Your task to perform on an android device: Open notification settings Image 0: 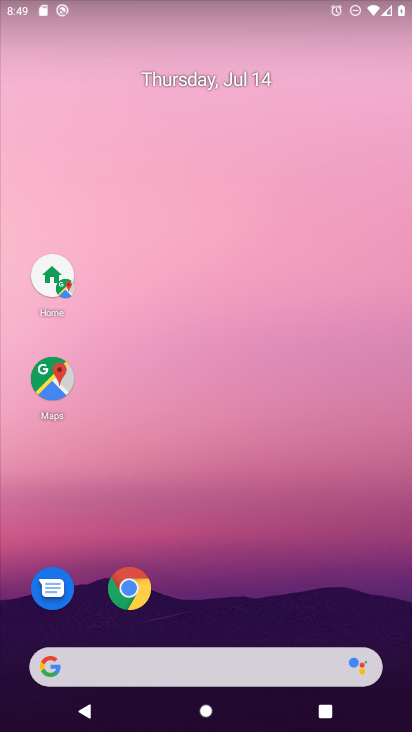
Step 0: drag from (47, 707) to (337, 34)
Your task to perform on an android device: Open notification settings Image 1: 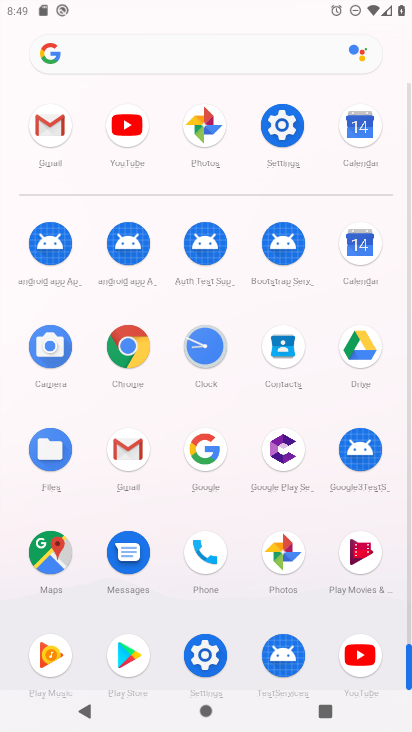
Step 1: click (213, 659)
Your task to perform on an android device: Open notification settings Image 2: 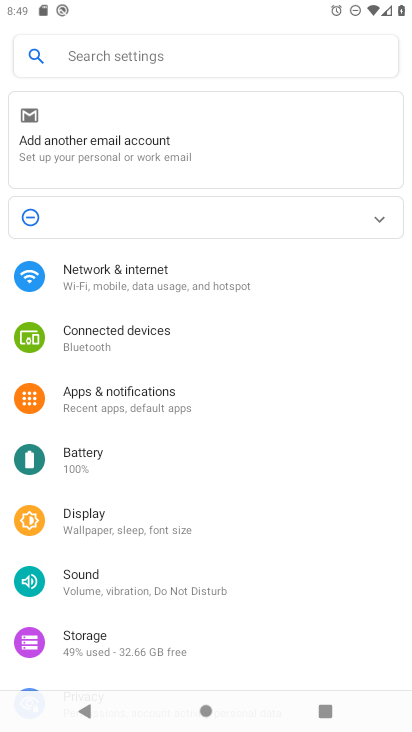
Step 2: click (150, 399)
Your task to perform on an android device: Open notification settings Image 3: 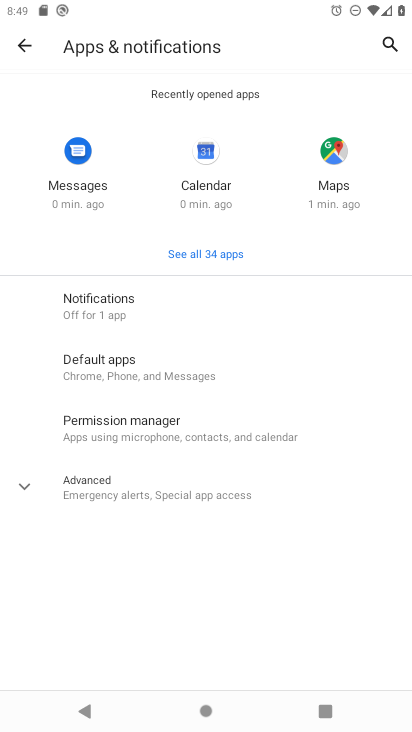
Step 3: task complete